Your task to perform on an android device: check storage Image 0: 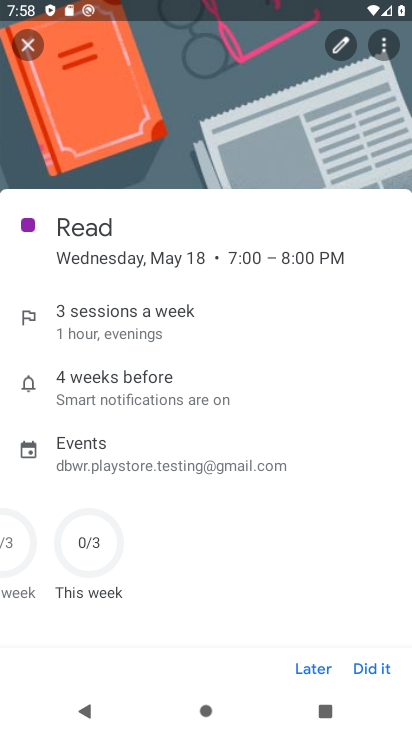
Step 0: press home button
Your task to perform on an android device: check storage Image 1: 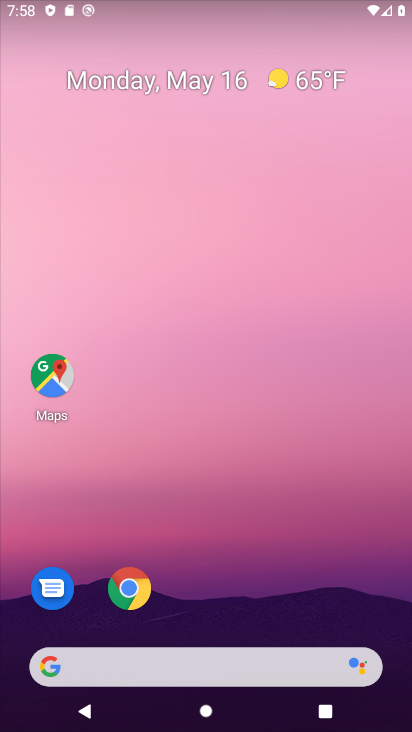
Step 1: drag from (337, 591) to (333, 108)
Your task to perform on an android device: check storage Image 2: 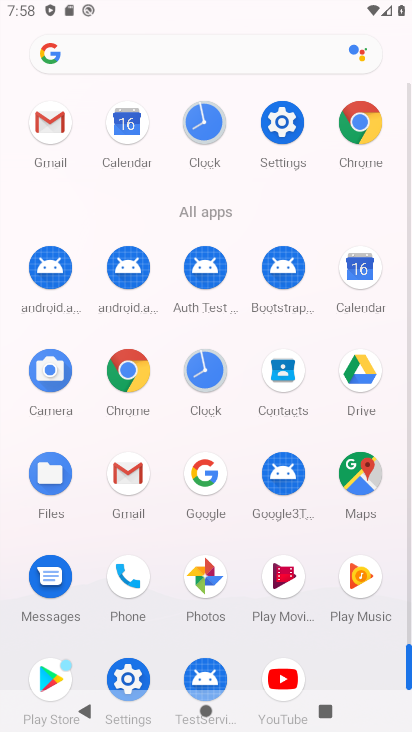
Step 2: click (286, 128)
Your task to perform on an android device: check storage Image 3: 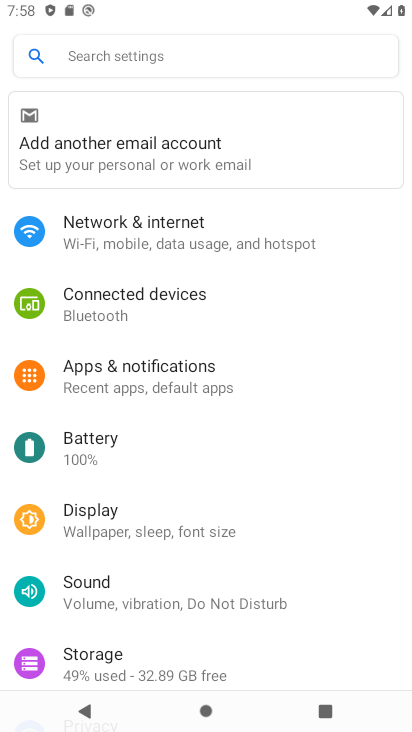
Step 3: drag from (323, 561) to (334, 378)
Your task to perform on an android device: check storage Image 4: 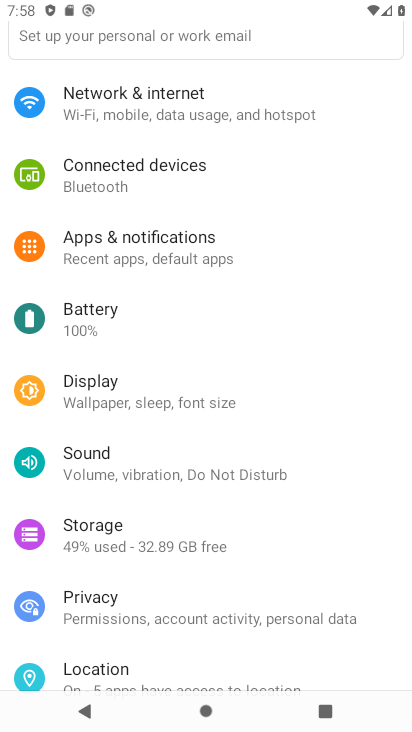
Step 4: drag from (310, 556) to (311, 366)
Your task to perform on an android device: check storage Image 5: 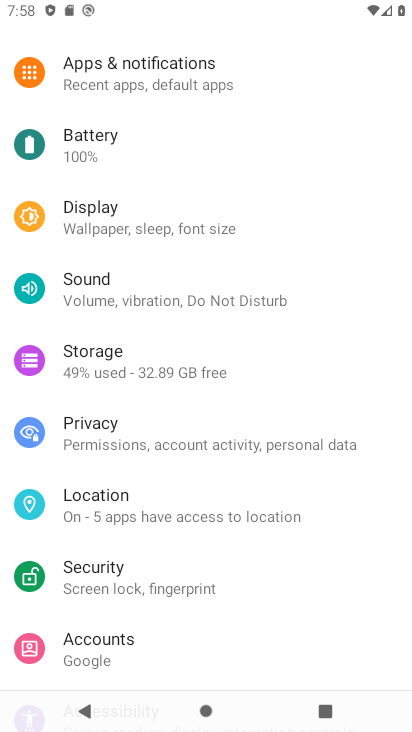
Step 5: click (169, 359)
Your task to perform on an android device: check storage Image 6: 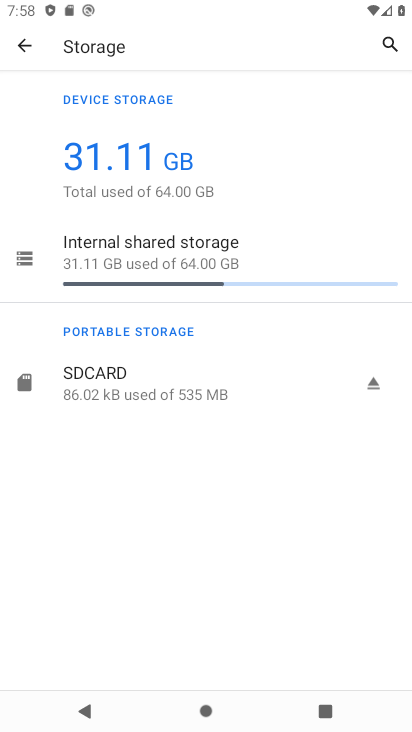
Step 6: task complete